Your task to perform on an android device: Open Google Image 0: 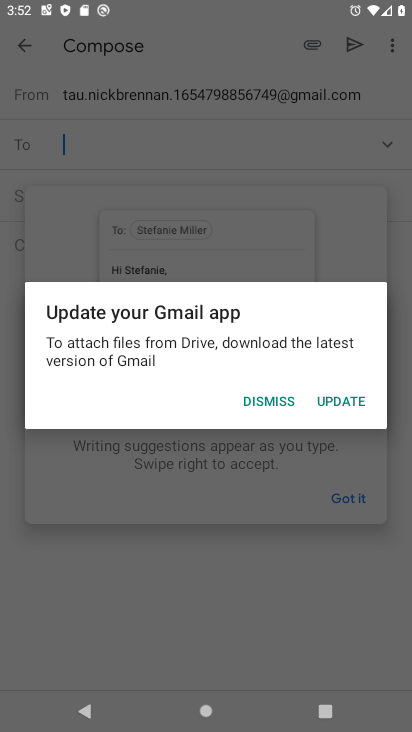
Step 0: click (362, 497)
Your task to perform on an android device: Open Google Image 1: 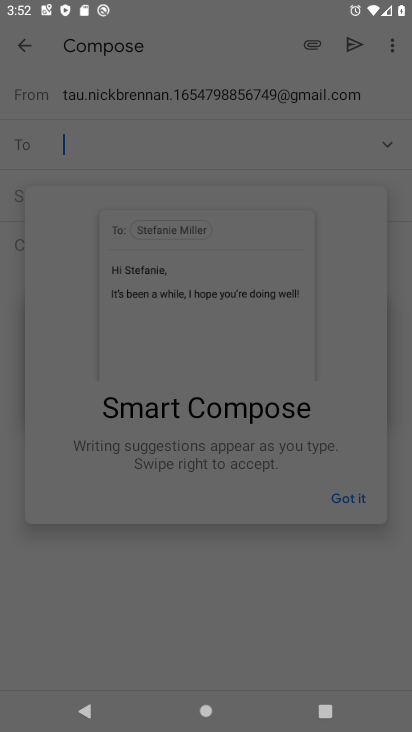
Step 1: press home button
Your task to perform on an android device: Open Google Image 2: 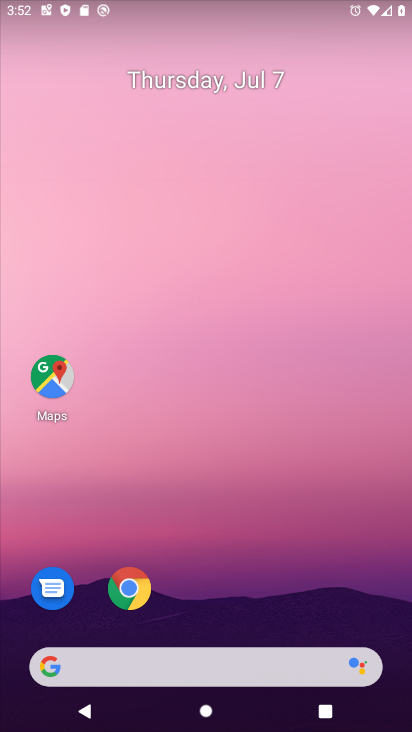
Step 2: click (117, 667)
Your task to perform on an android device: Open Google Image 3: 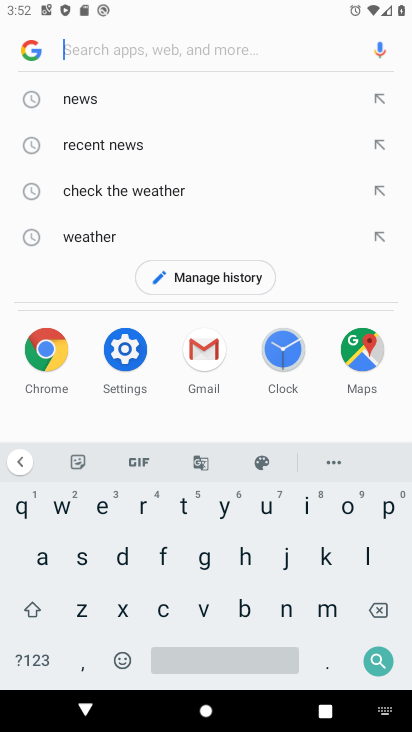
Step 3: click (26, 50)
Your task to perform on an android device: Open Google Image 4: 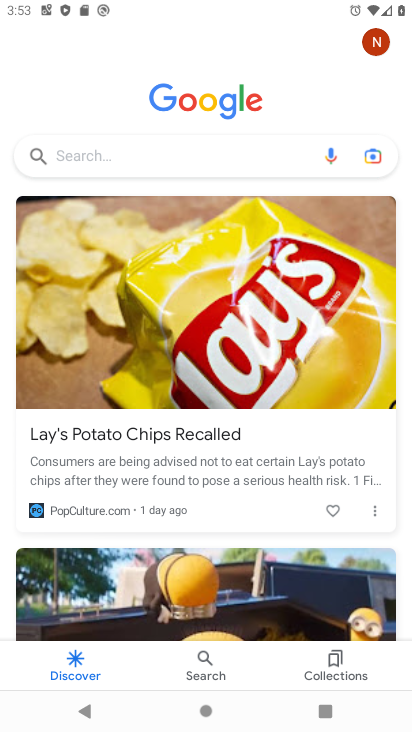
Step 4: task complete